Your task to perform on an android device: refresh tabs in the chrome app Image 0: 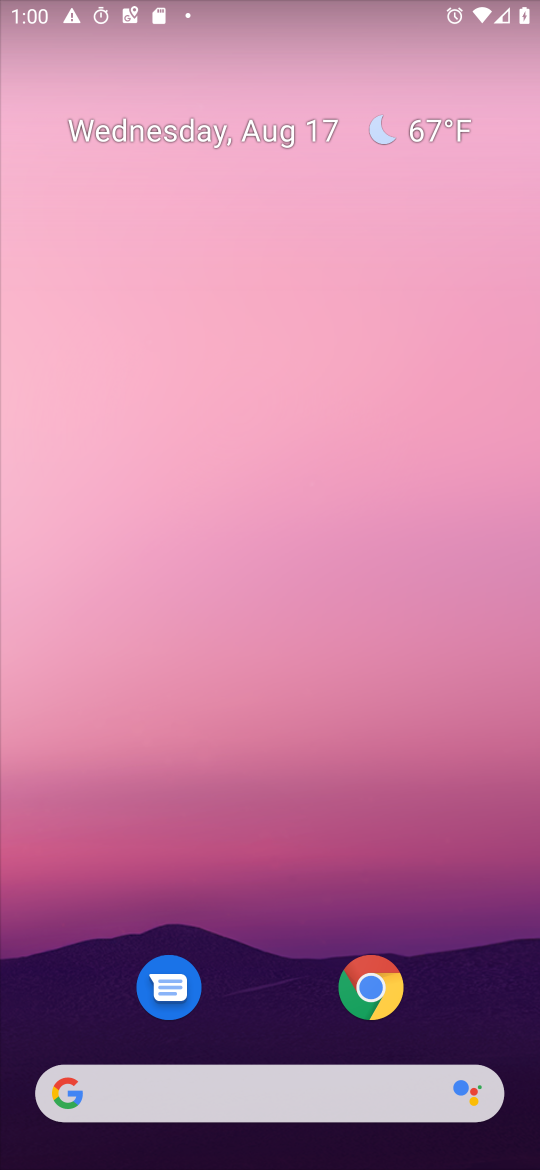
Step 0: click (359, 1000)
Your task to perform on an android device: refresh tabs in the chrome app Image 1: 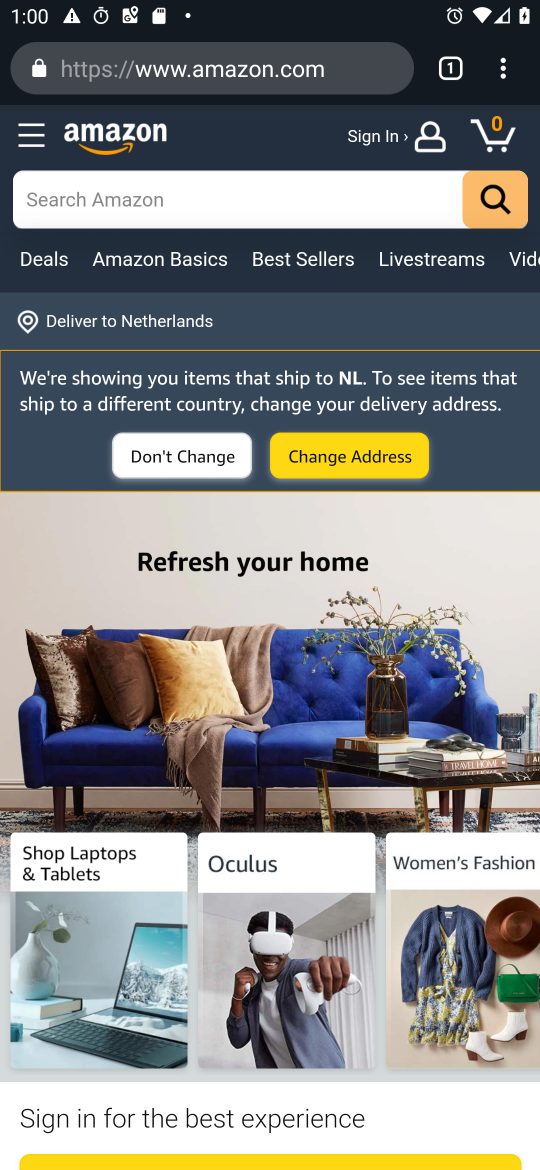
Step 1: click (502, 66)
Your task to perform on an android device: refresh tabs in the chrome app Image 2: 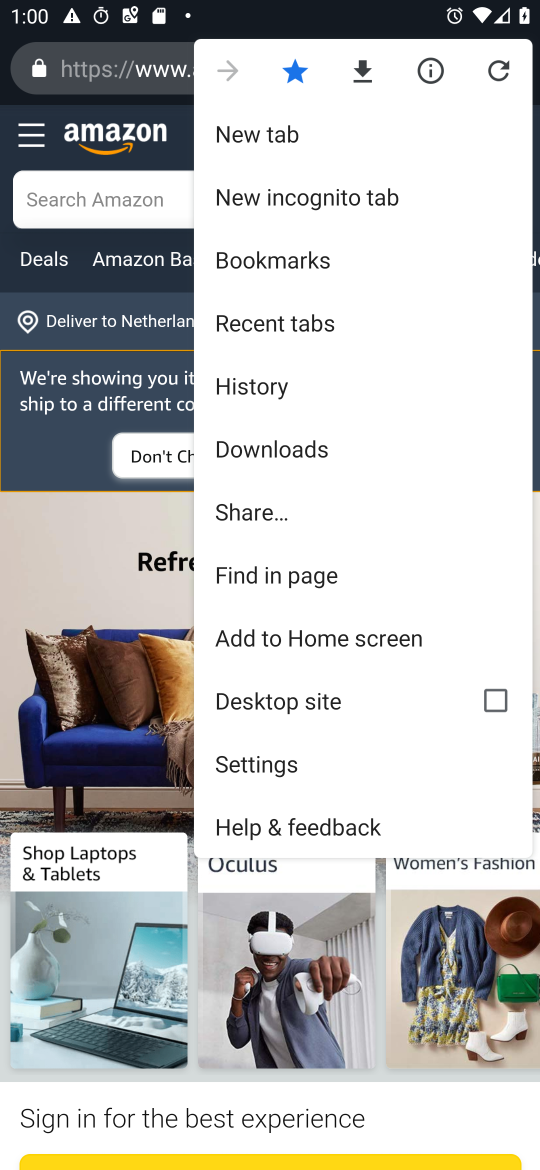
Step 2: click (498, 71)
Your task to perform on an android device: refresh tabs in the chrome app Image 3: 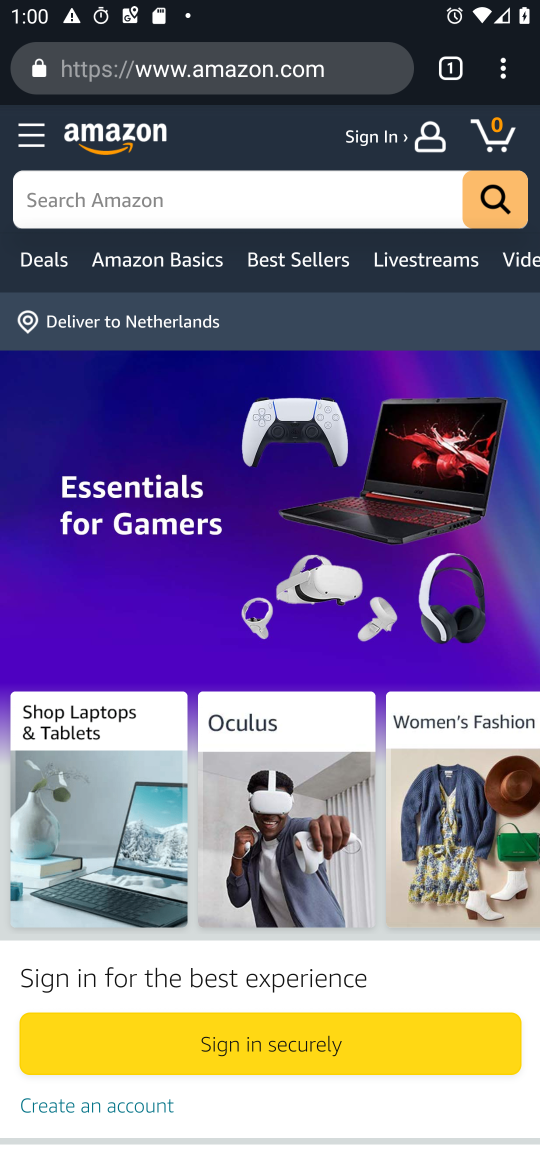
Step 3: task complete